Your task to perform on an android device: turn on data saver in the chrome app Image 0: 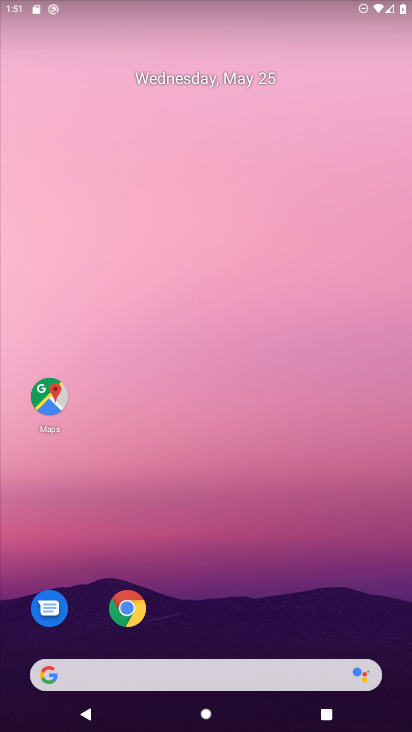
Step 0: click (132, 606)
Your task to perform on an android device: turn on data saver in the chrome app Image 1: 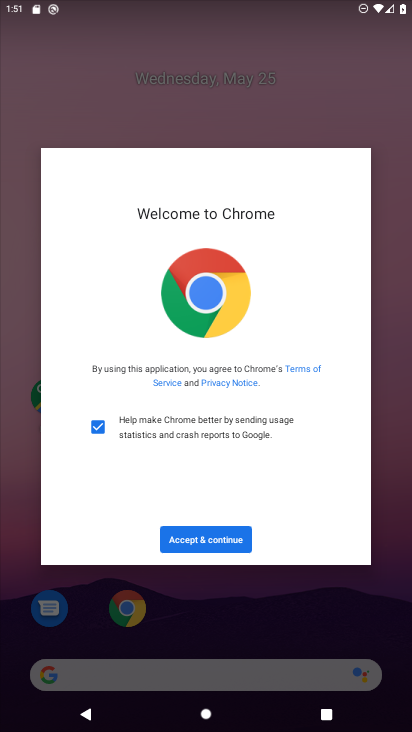
Step 1: click (218, 537)
Your task to perform on an android device: turn on data saver in the chrome app Image 2: 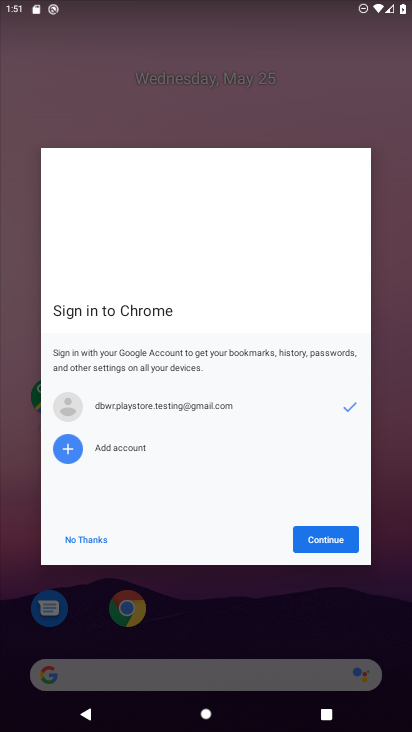
Step 2: click (335, 547)
Your task to perform on an android device: turn on data saver in the chrome app Image 3: 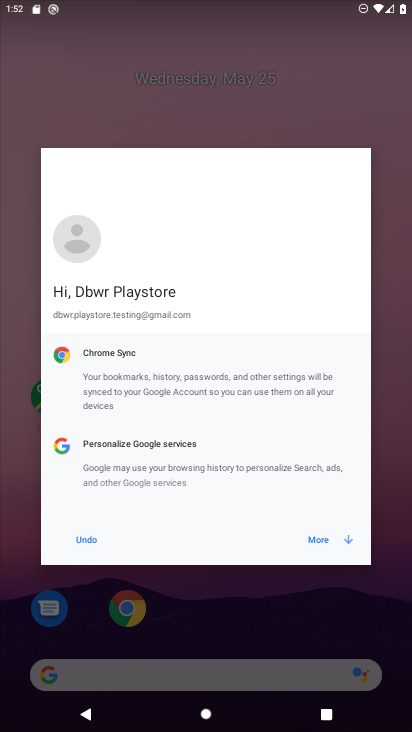
Step 3: click (321, 538)
Your task to perform on an android device: turn on data saver in the chrome app Image 4: 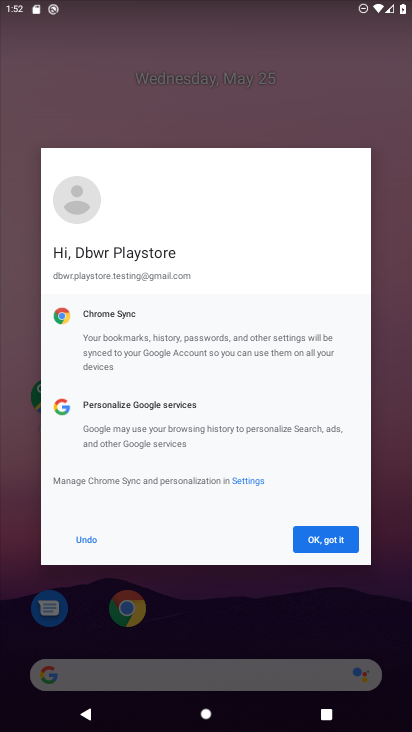
Step 4: click (321, 538)
Your task to perform on an android device: turn on data saver in the chrome app Image 5: 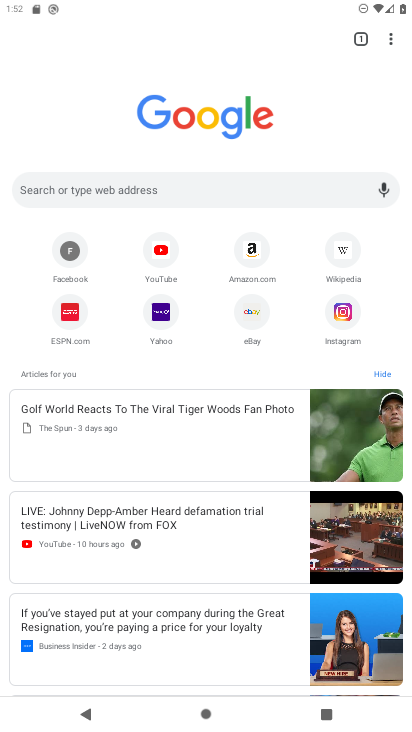
Step 5: click (389, 38)
Your task to perform on an android device: turn on data saver in the chrome app Image 6: 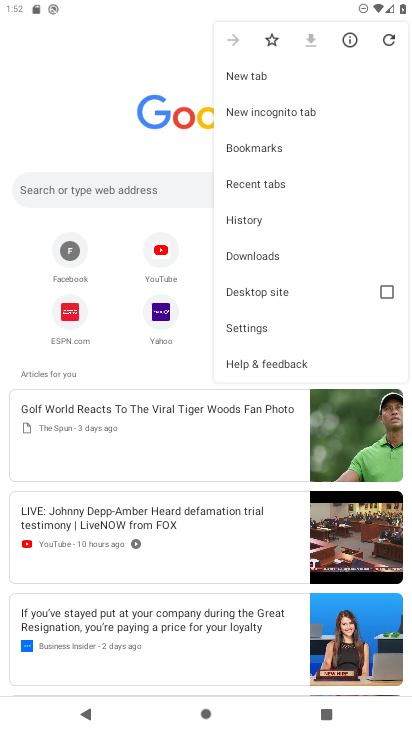
Step 6: click (252, 330)
Your task to perform on an android device: turn on data saver in the chrome app Image 7: 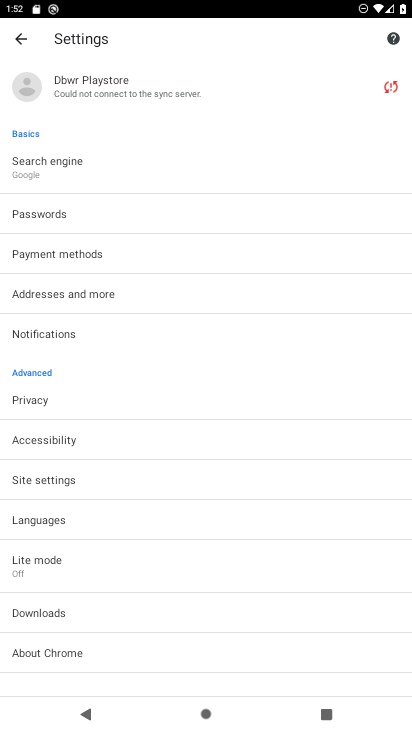
Step 7: click (49, 568)
Your task to perform on an android device: turn on data saver in the chrome app Image 8: 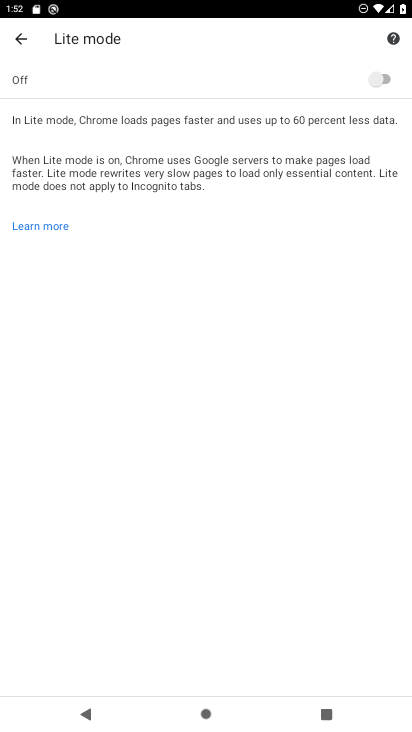
Step 8: click (378, 79)
Your task to perform on an android device: turn on data saver in the chrome app Image 9: 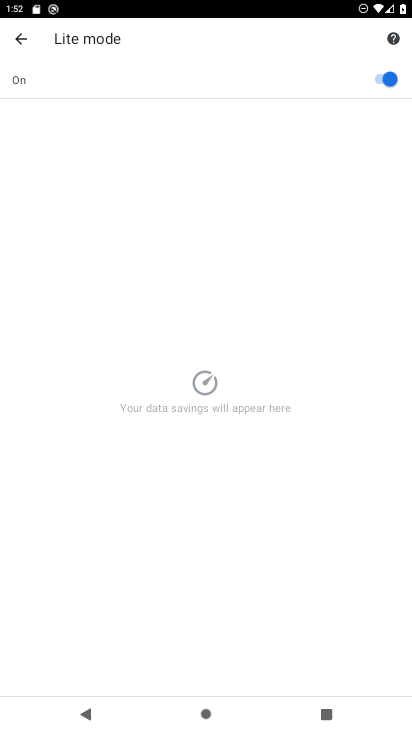
Step 9: task complete